Your task to perform on an android device: Go to Android settings Image 0: 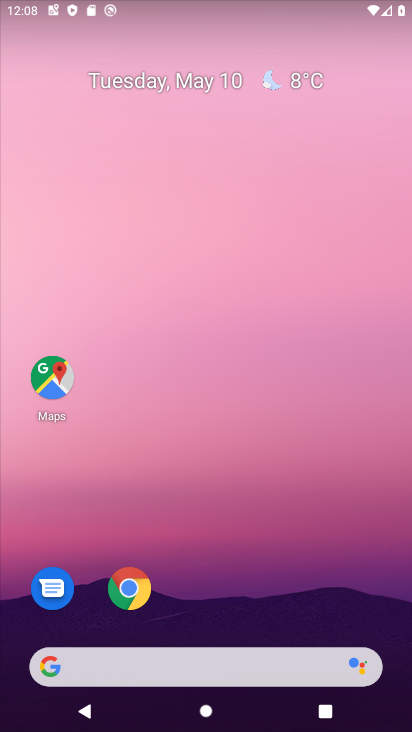
Step 0: drag from (174, 642) to (292, 1)
Your task to perform on an android device: Go to Android settings Image 1: 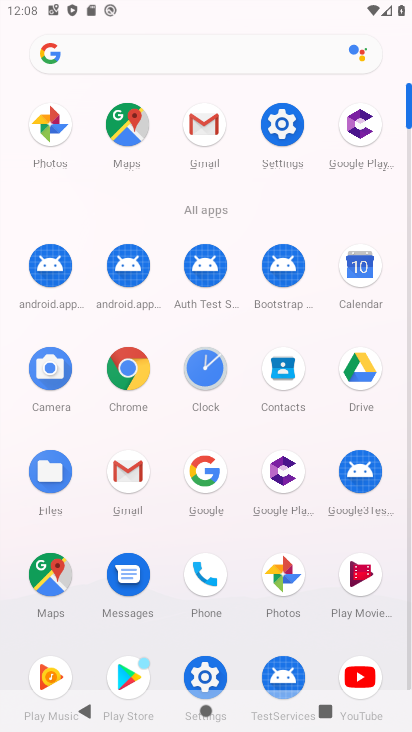
Step 1: click (212, 678)
Your task to perform on an android device: Go to Android settings Image 2: 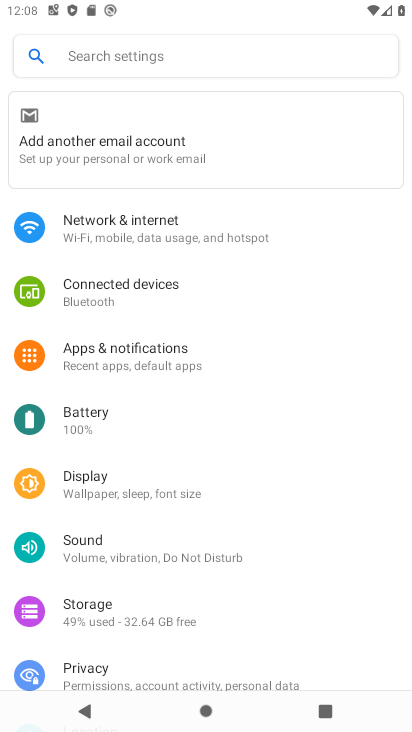
Step 2: task complete